Your task to perform on an android device: turn off javascript in the chrome app Image 0: 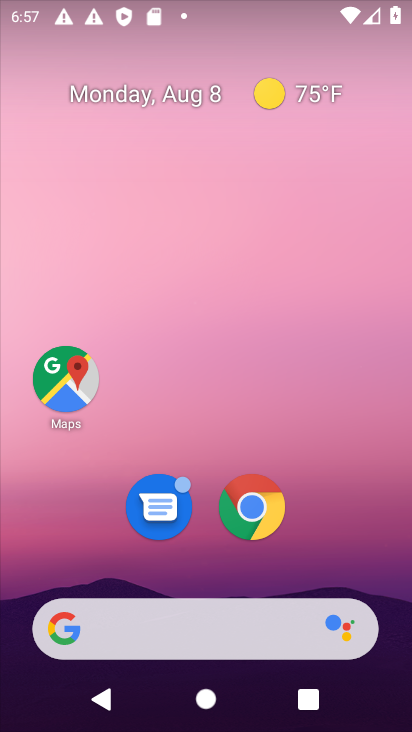
Step 0: drag from (241, 650) to (219, 200)
Your task to perform on an android device: turn off javascript in the chrome app Image 1: 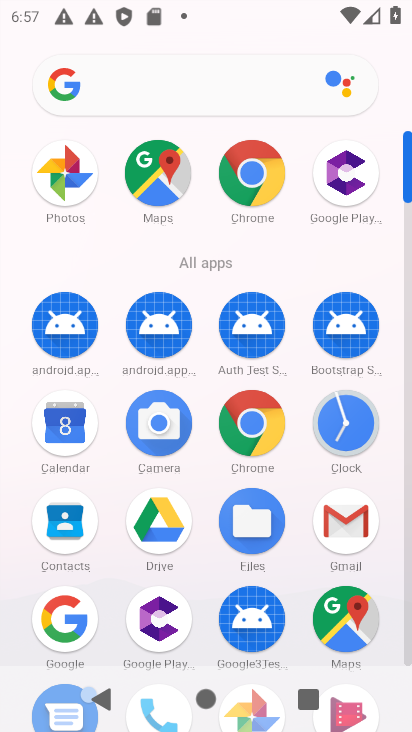
Step 1: click (241, 199)
Your task to perform on an android device: turn off javascript in the chrome app Image 2: 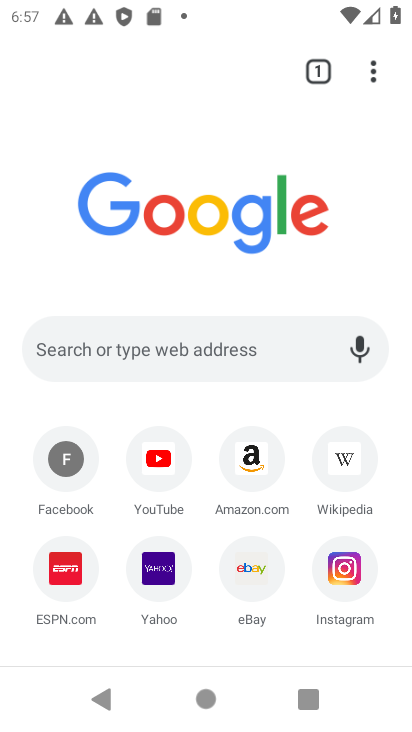
Step 2: click (359, 89)
Your task to perform on an android device: turn off javascript in the chrome app Image 3: 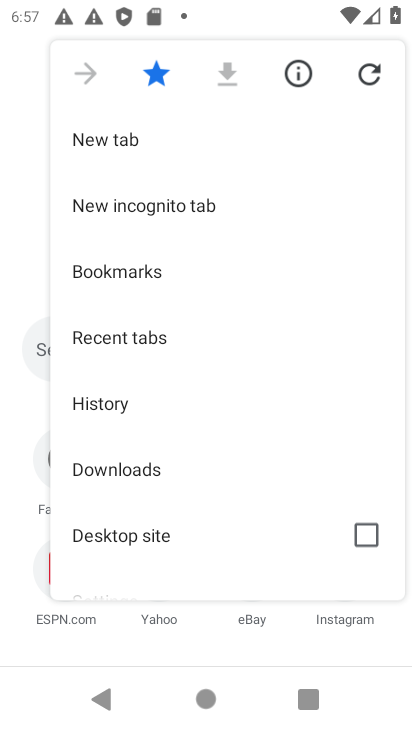
Step 3: drag from (147, 543) to (170, 368)
Your task to perform on an android device: turn off javascript in the chrome app Image 4: 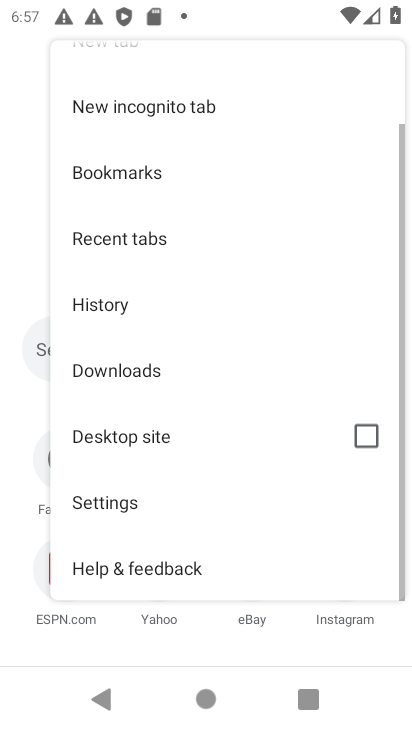
Step 4: click (161, 499)
Your task to perform on an android device: turn off javascript in the chrome app Image 5: 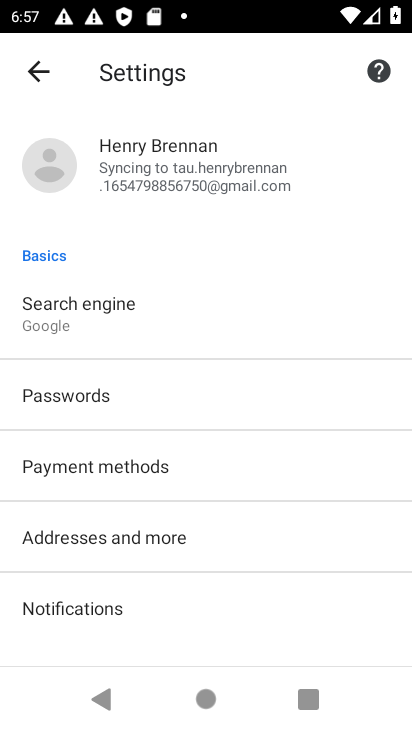
Step 5: drag from (151, 529) to (142, 317)
Your task to perform on an android device: turn off javascript in the chrome app Image 6: 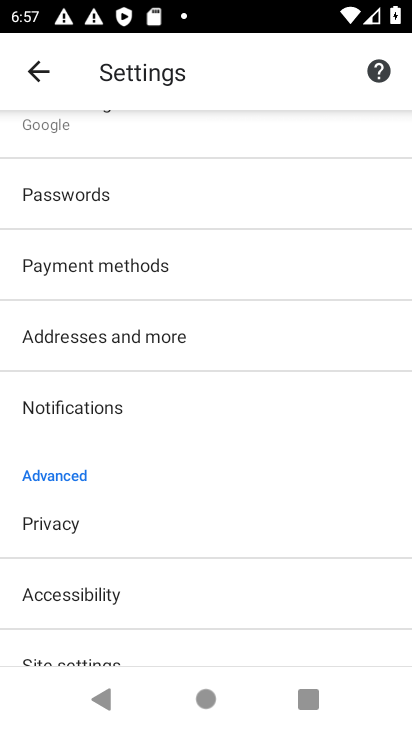
Step 6: drag from (113, 604) to (111, 452)
Your task to perform on an android device: turn off javascript in the chrome app Image 7: 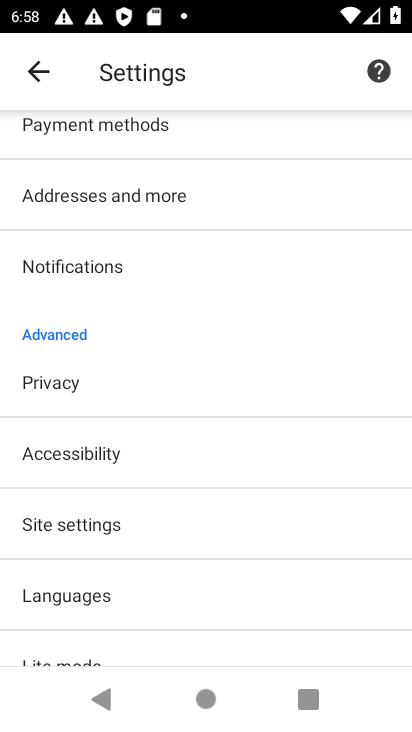
Step 7: click (109, 539)
Your task to perform on an android device: turn off javascript in the chrome app Image 8: 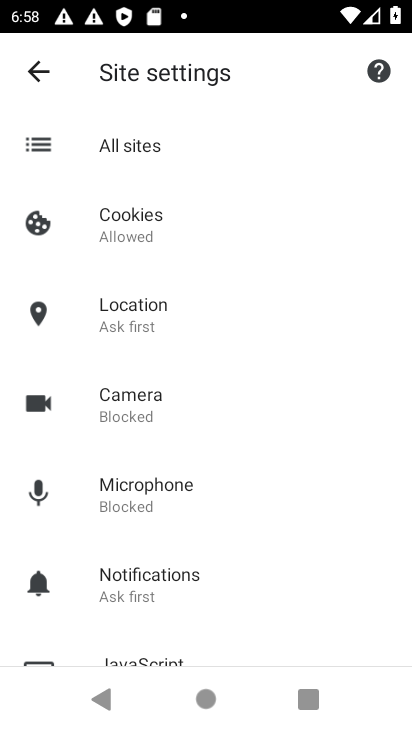
Step 8: drag from (160, 620) to (165, 511)
Your task to perform on an android device: turn off javascript in the chrome app Image 9: 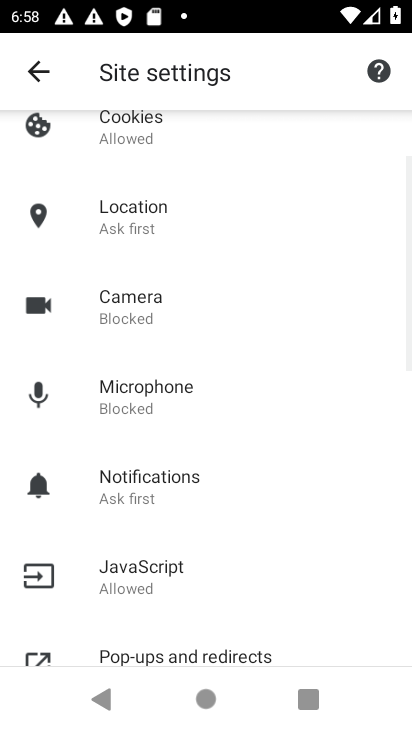
Step 9: click (157, 571)
Your task to perform on an android device: turn off javascript in the chrome app Image 10: 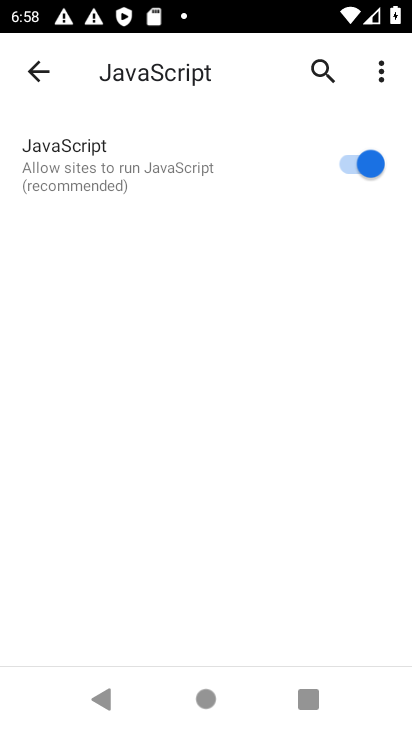
Step 10: click (336, 166)
Your task to perform on an android device: turn off javascript in the chrome app Image 11: 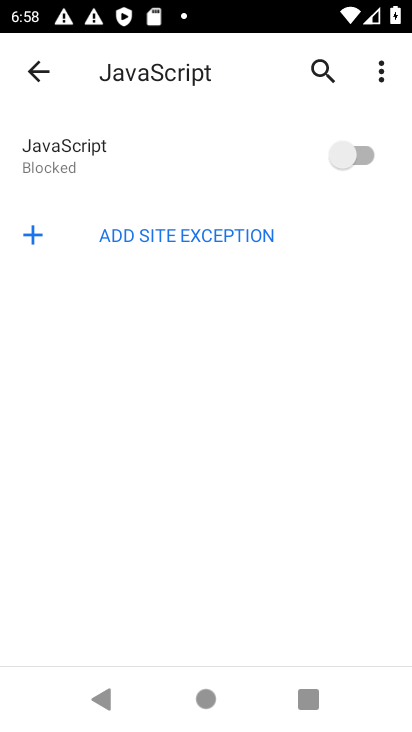
Step 11: task complete